Your task to perform on an android device: Add "razer kraken" to the cart on ebay, then select checkout. Image 0: 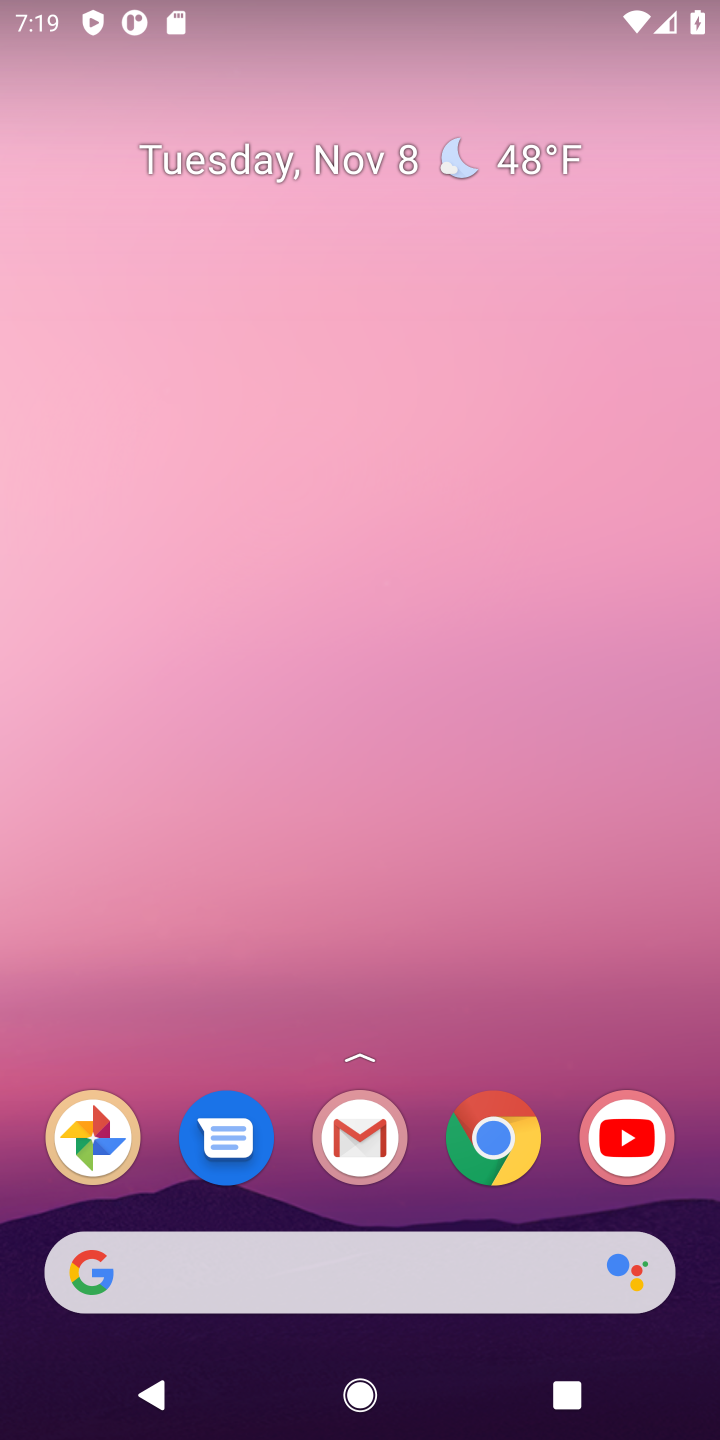
Step 0: click (496, 1148)
Your task to perform on an android device: Add "razer kraken" to the cart on ebay, then select checkout. Image 1: 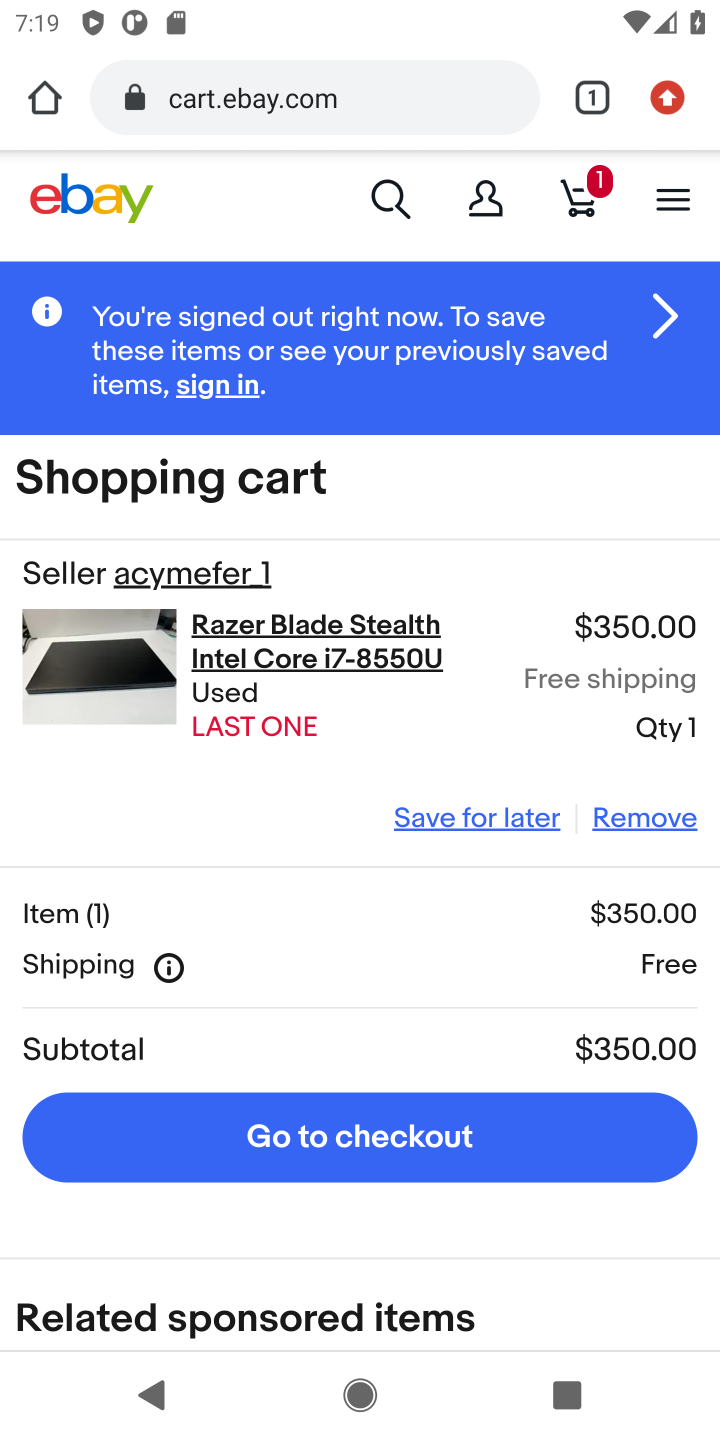
Step 1: click (385, 191)
Your task to perform on an android device: Add "razer kraken" to the cart on ebay, then select checkout. Image 2: 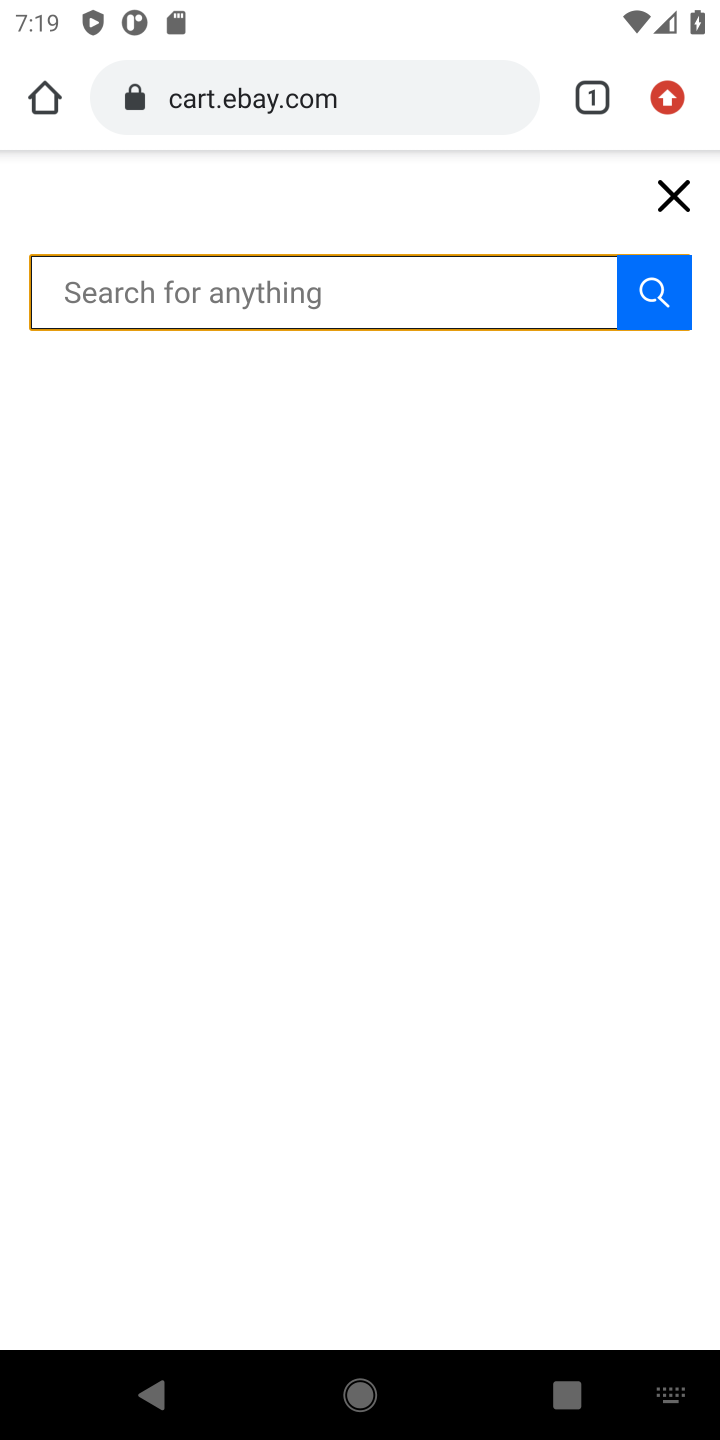
Step 2: click (73, 277)
Your task to perform on an android device: Add "razer kraken" to the cart on ebay, then select checkout. Image 3: 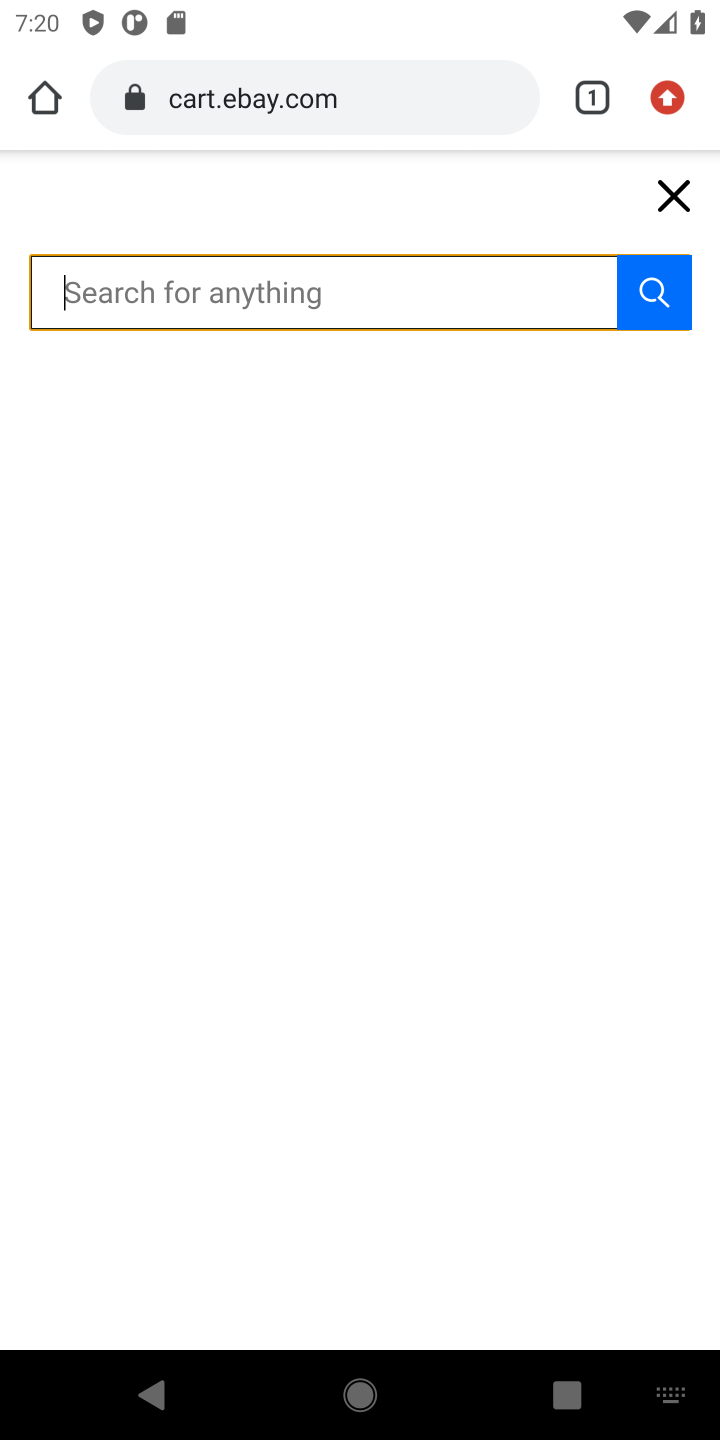
Step 3: type "razer kraken"
Your task to perform on an android device: Add "razer kraken" to the cart on ebay, then select checkout. Image 4: 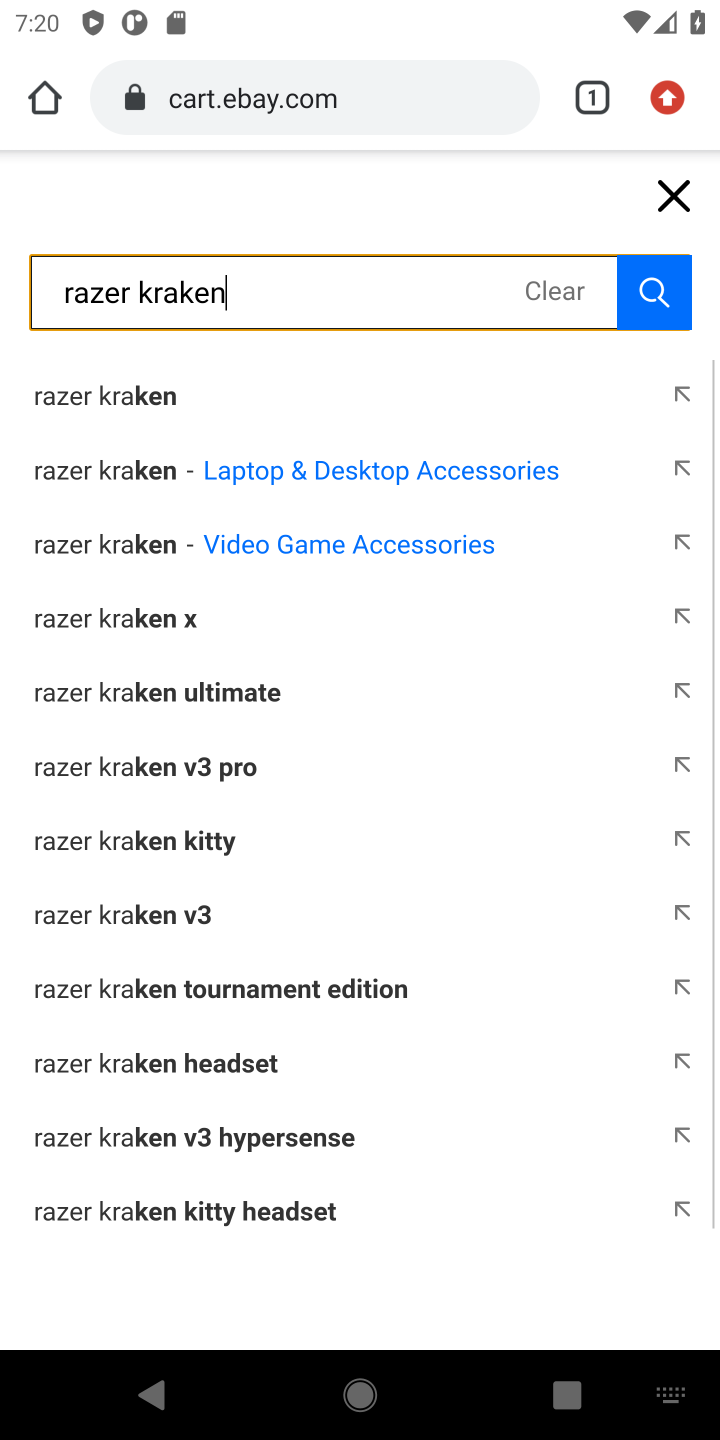
Step 4: press enter
Your task to perform on an android device: Add "razer kraken" to the cart on ebay, then select checkout. Image 5: 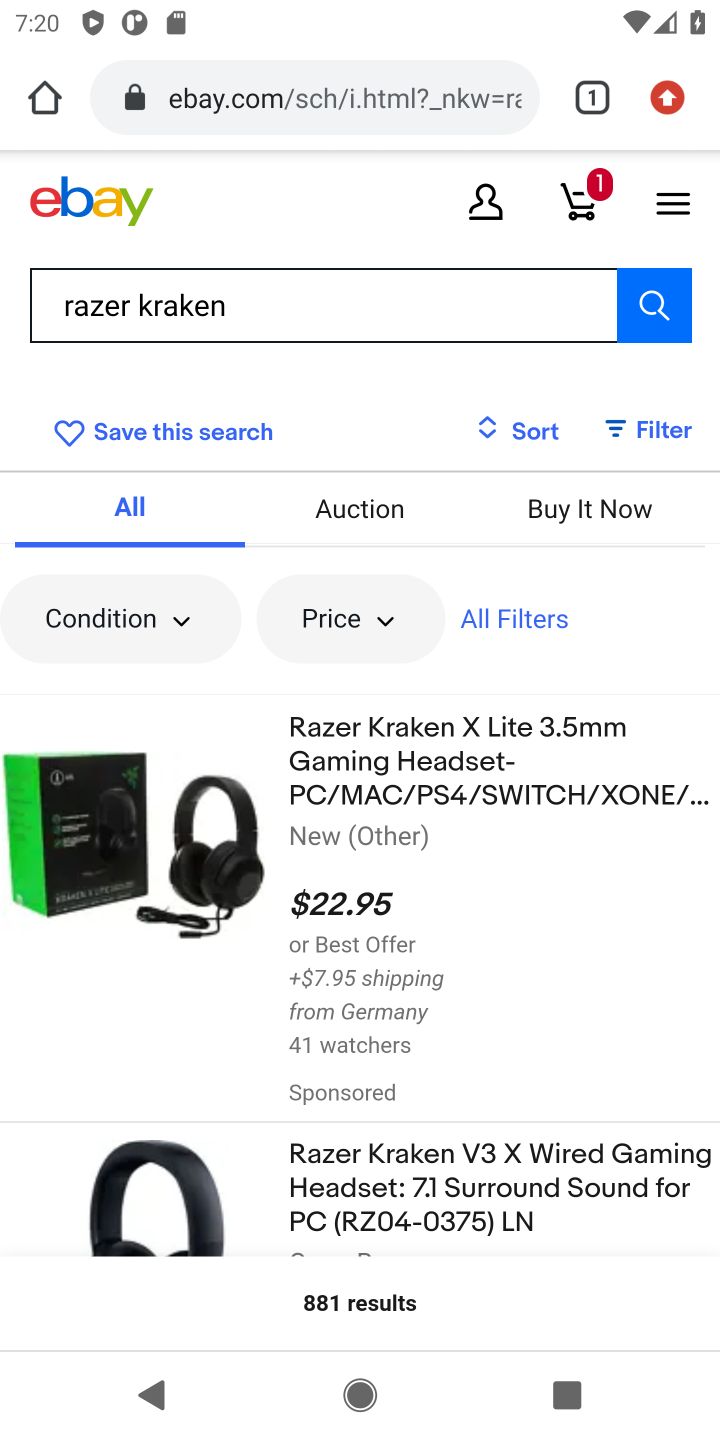
Step 5: click (420, 791)
Your task to perform on an android device: Add "razer kraken" to the cart on ebay, then select checkout. Image 6: 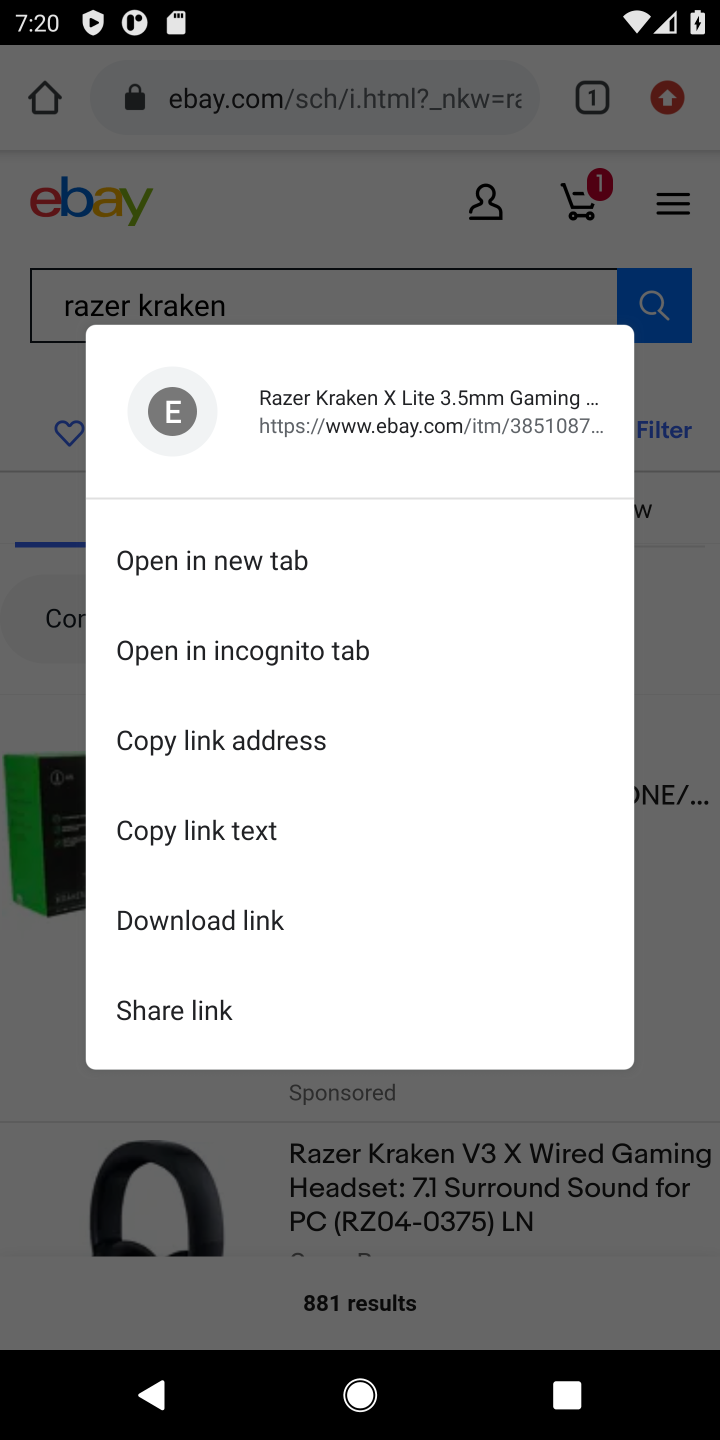
Step 6: click (669, 791)
Your task to perform on an android device: Add "razer kraken" to the cart on ebay, then select checkout. Image 7: 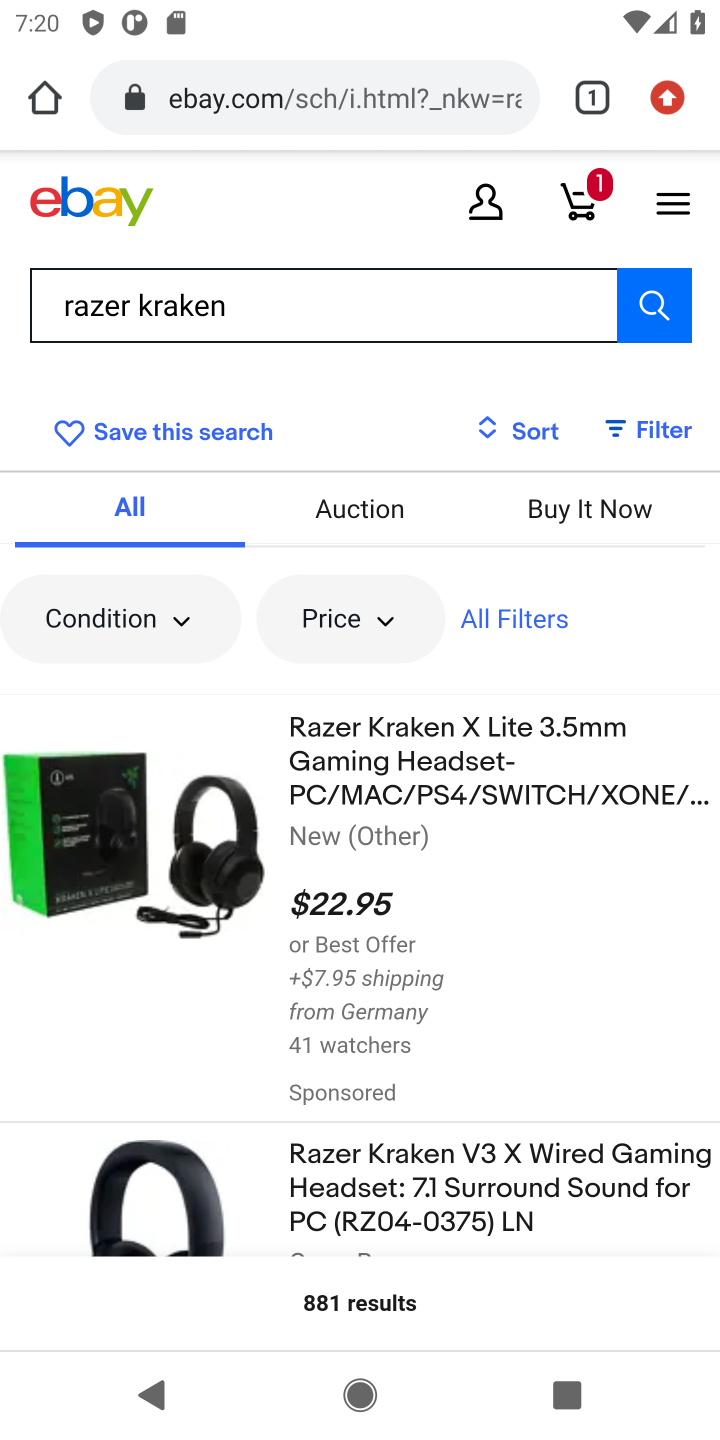
Step 7: click (397, 757)
Your task to perform on an android device: Add "razer kraken" to the cart on ebay, then select checkout. Image 8: 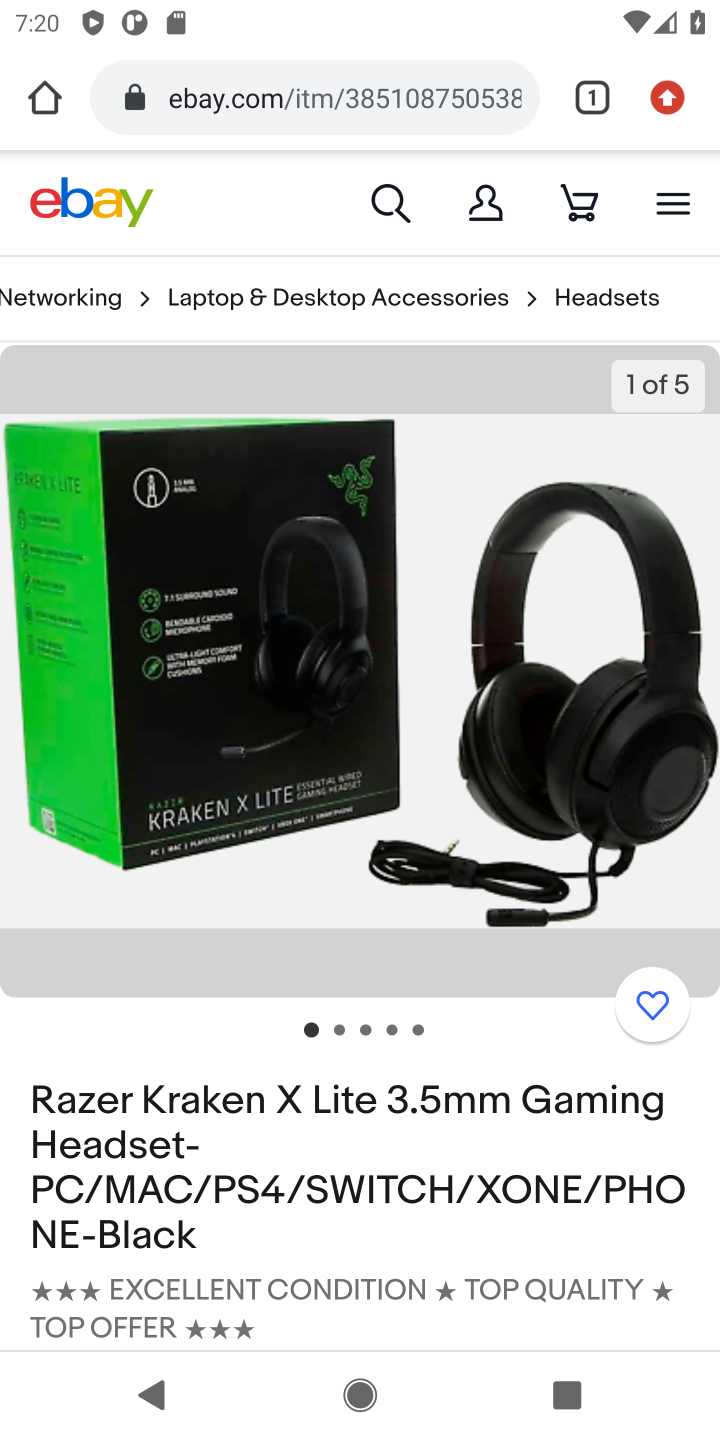
Step 8: drag from (292, 1262) to (681, 144)
Your task to perform on an android device: Add "razer kraken" to the cart on ebay, then select checkout. Image 9: 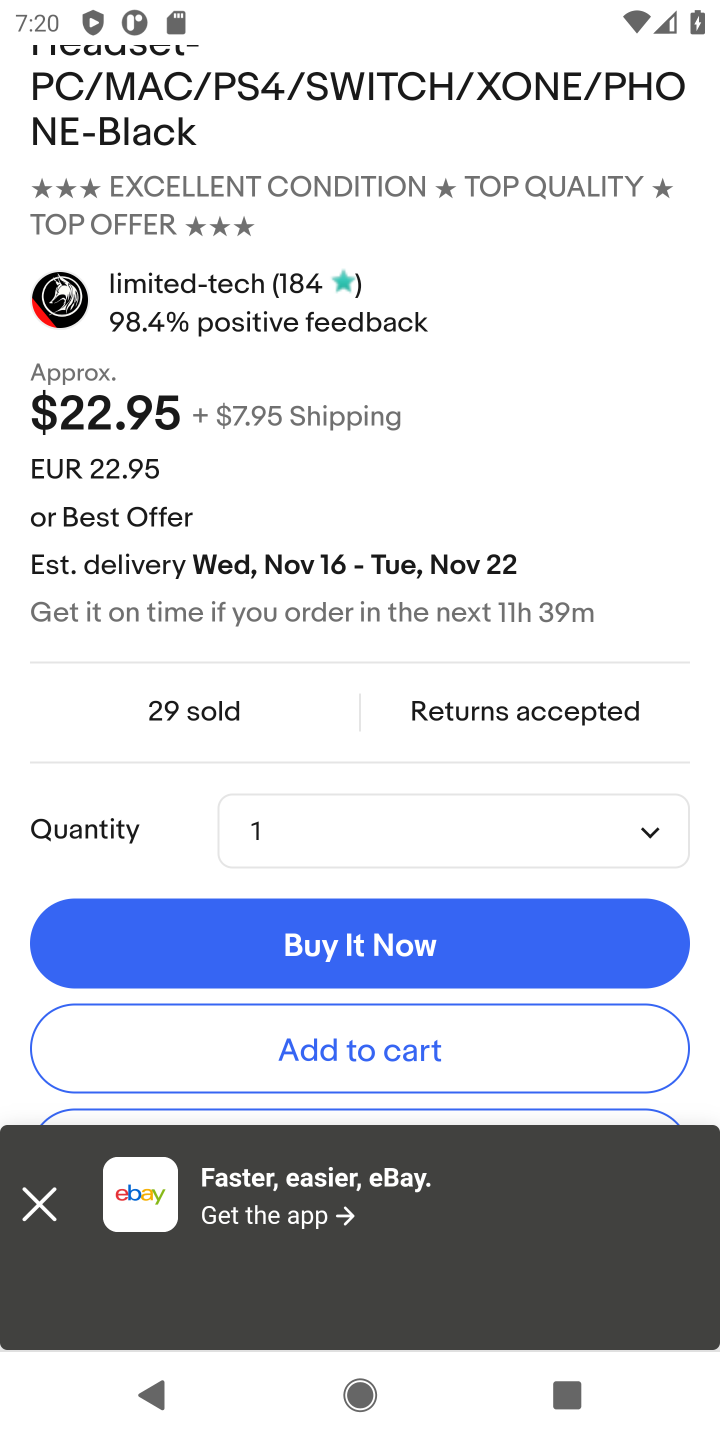
Step 9: click (380, 1056)
Your task to perform on an android device: Add "razer kraken" to the cart on ebay, then select checkout. Image 10: 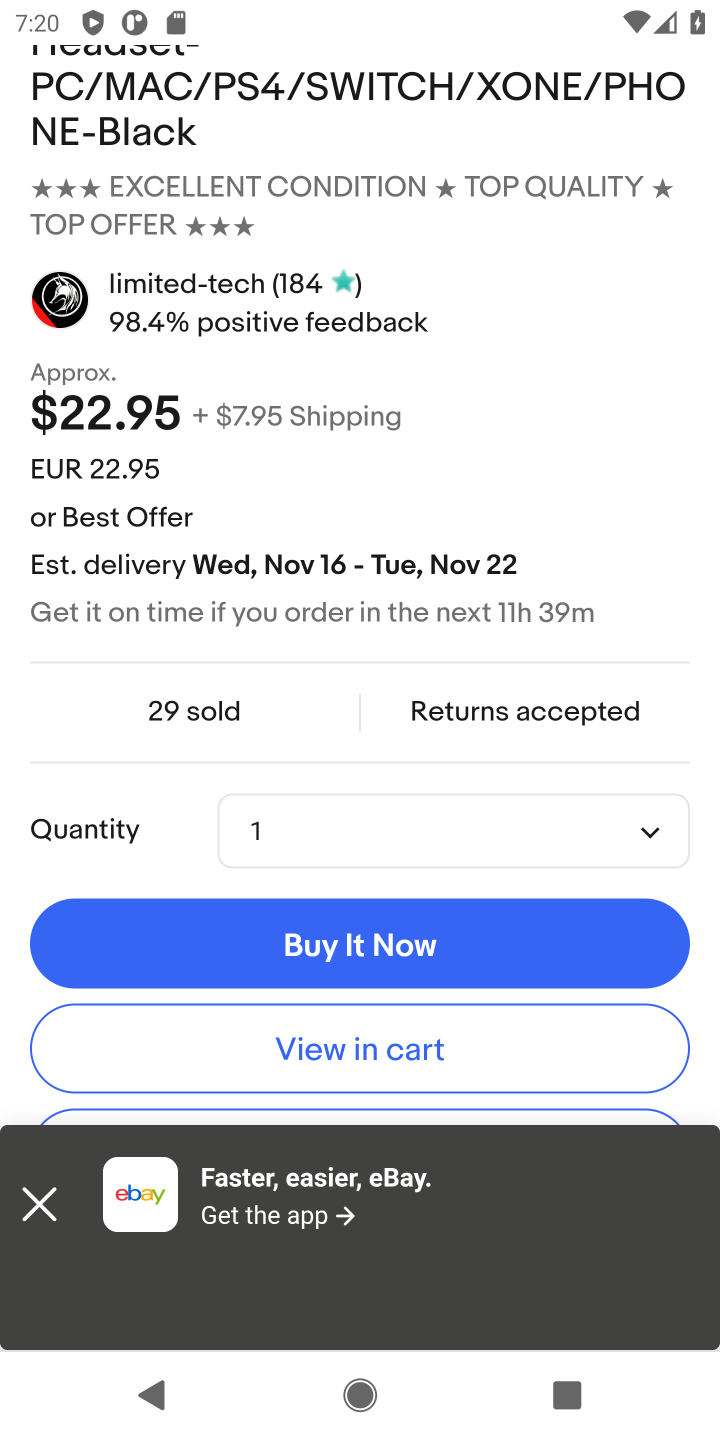
Step 10: click (378, 1031)
Your task to perform on an android device: Add "razer kraken" to the cart on ebay, then select checkout. Image 11: 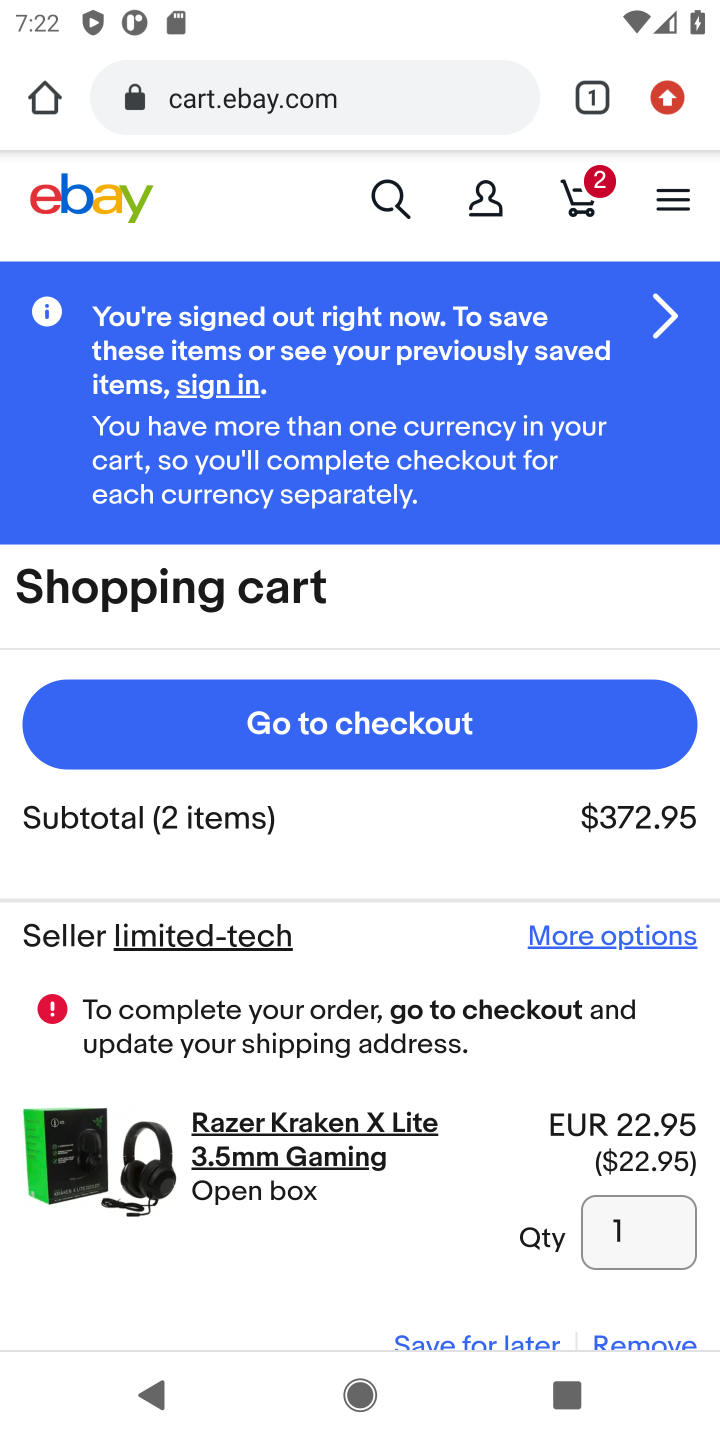
Step 11: click (383, 728)
Your task to perform on an android device: Add "razer kraken" to the cart on ebay, then select checkout. Image 12: 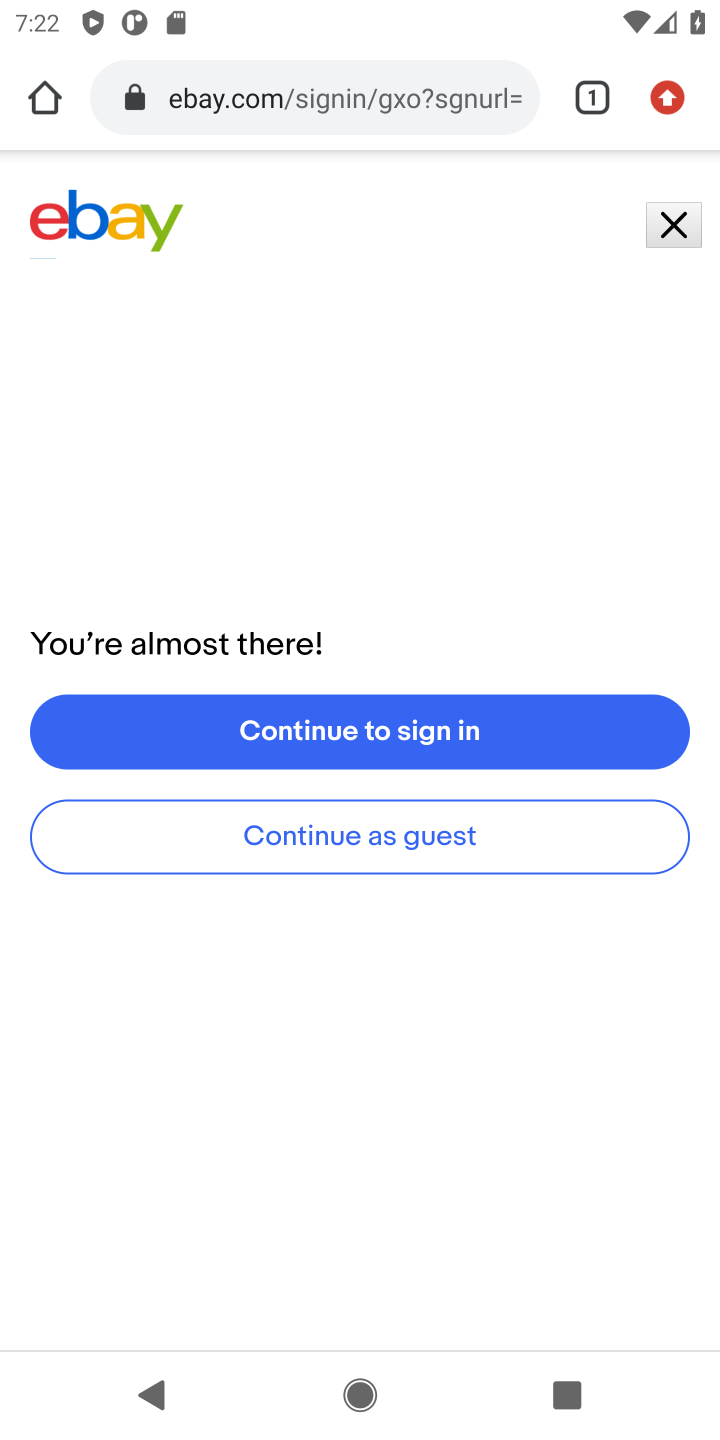
Step 12: task complete